Your task to perform on an android device: delete location history Image 0: 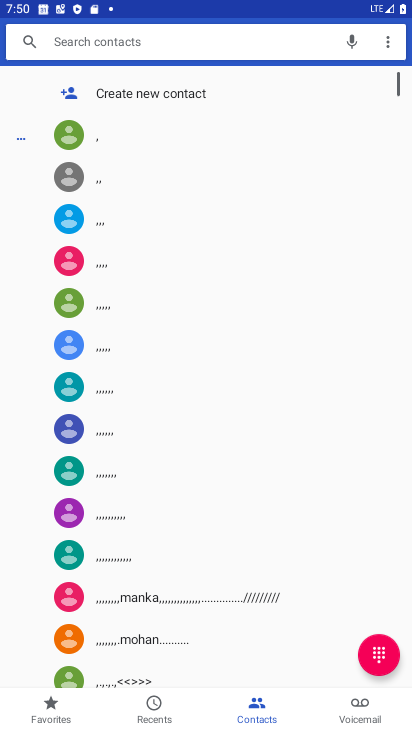
Step 0: drag from (248, 712) to (184, 228)
Your task to perform on an android device: delete location history Image 1: 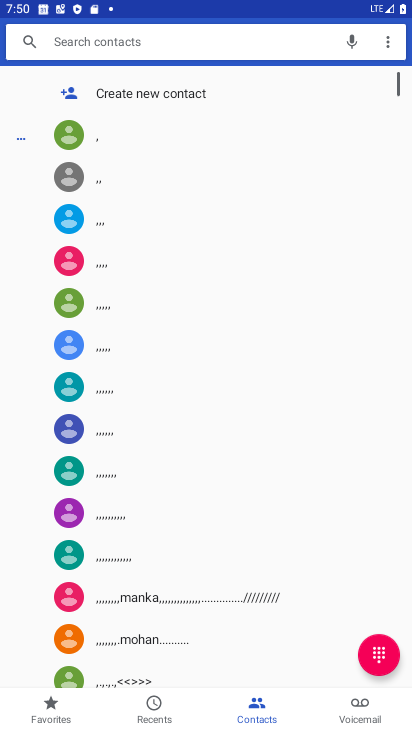
Step 1: press home button
Your task to perform on an android device: delete location history Image 2: 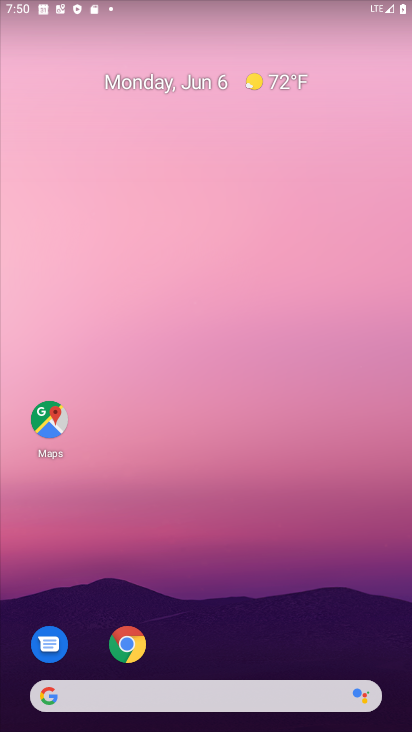
Step 2: drag from (211, 712) to (160, 212)
Your task to perform on an android device: delete location history Image 3: 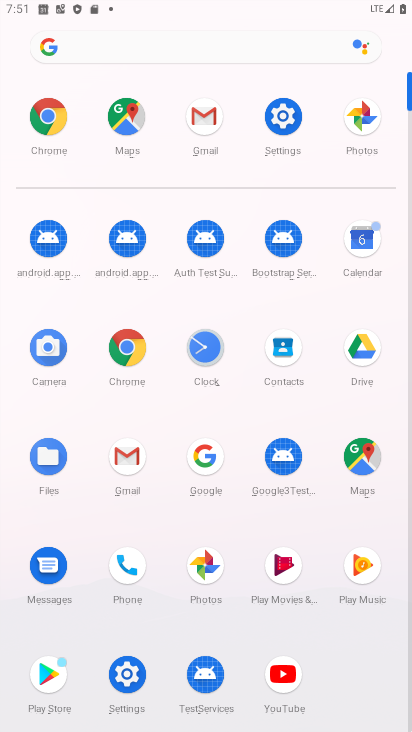
Step 3: click (128, 666)
Your task to perform on an android device: delete location history Image 4: 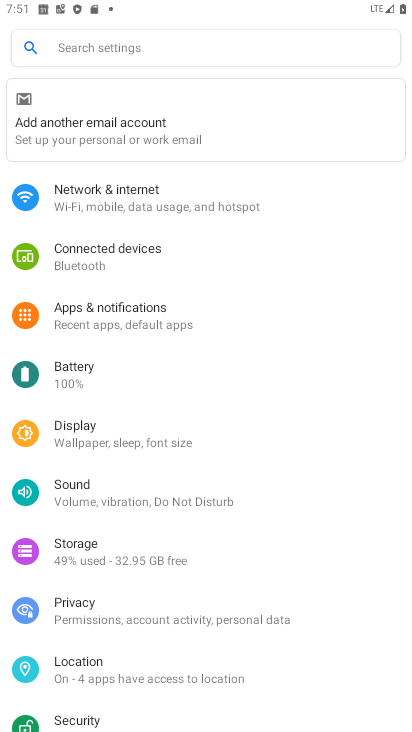
Step 4: click (106, 652)
Your task to perform on an android device: delete location history Image 5: 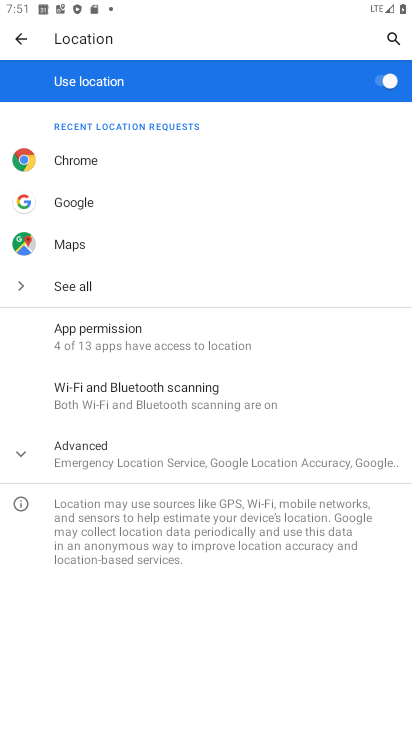
Step 5: click (72, 446)
Your task to perform on an android device: delete location history Image 6: 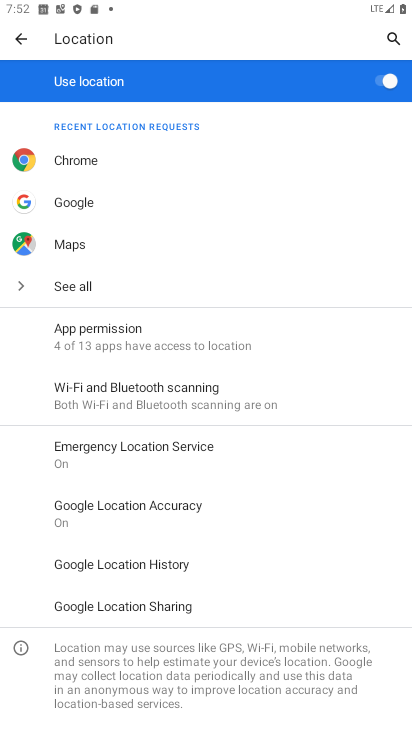
Step 6: click (157, 561)
Your task to perform on an android device: delete location history Image 7: 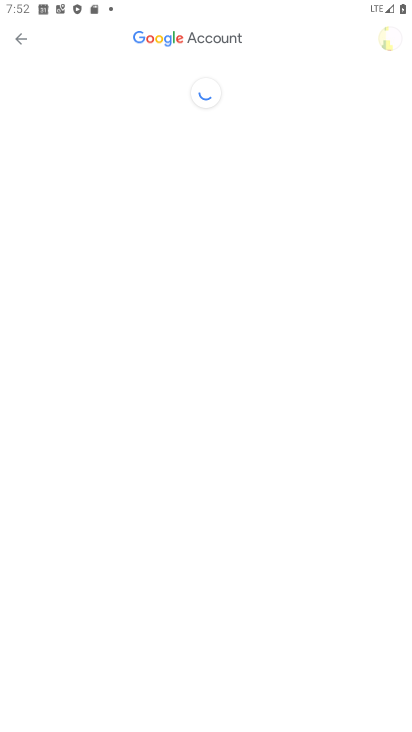
Step 7: task complete